Your task to perform on an android device: turn off notifications in google photos Image 0: 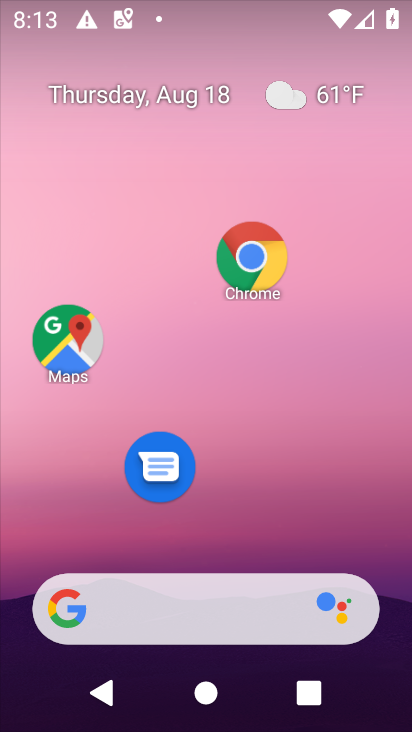
Step 0: drag from (338, 470) to (376, 143)
Your task to perform on an android device: turn off notifications in google photos Image 1: 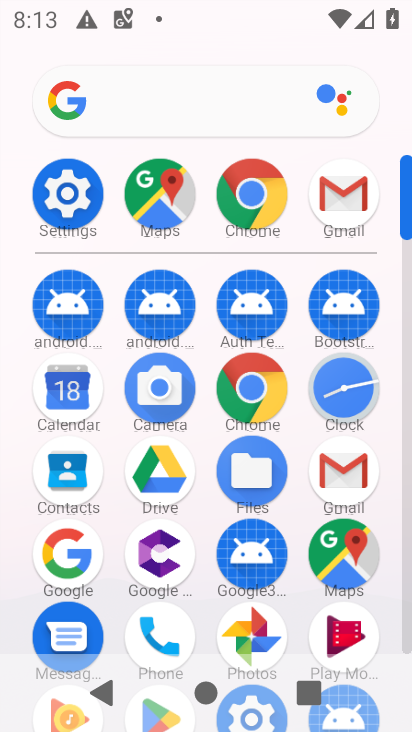
Step 1: task complete